Your task to perform on an android device: allow notifications from all sites in the chrome app Image 0: 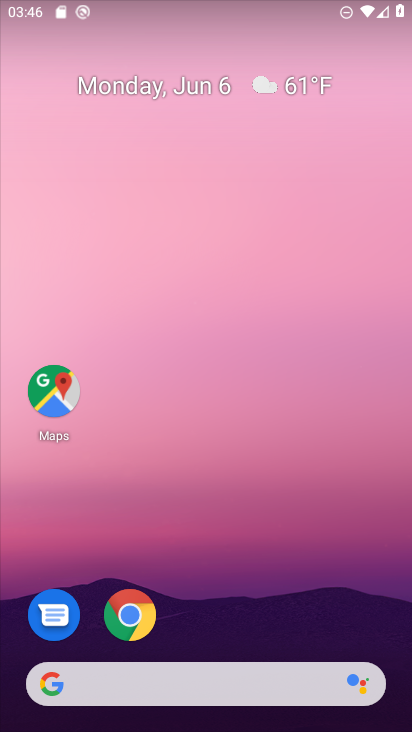
Step 0: click (131, 617)
Your task to perform on an android device: allow notifications from all sites in the chrome app Image 1: 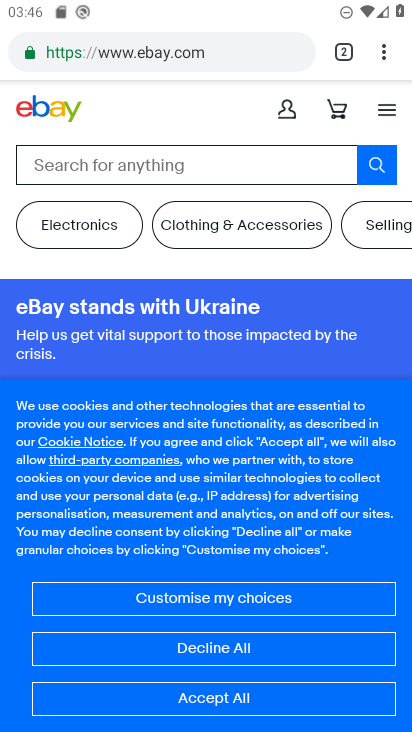
Step 1: click (383, 57)
Your task to perform on an android device: allow notifications from all sites in the chrome app Image 2: 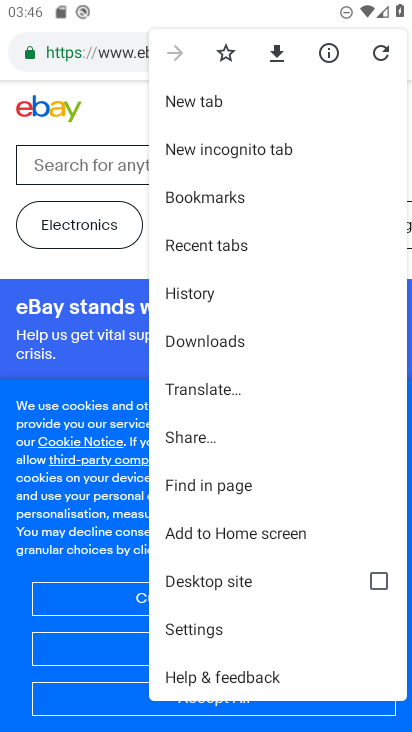
Step 2: click (199, 636)
Your task to perform on an android device: allow notifications from all sites in the chrome app Image 3: 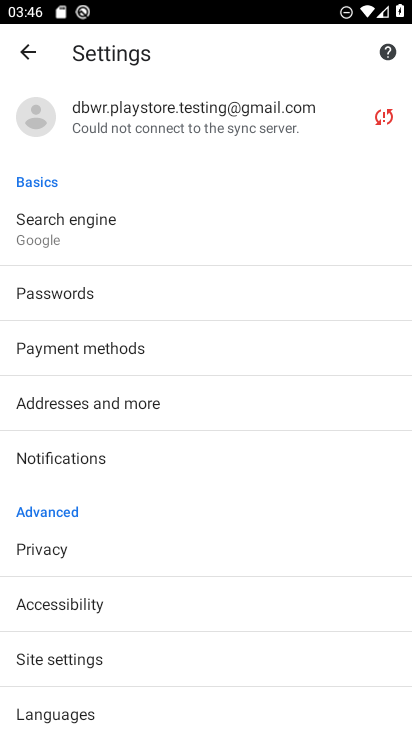
Step 3: drag from (169, 650) to (178, 475)
Your task to perform on an android device: allow notifications from all sites in the chrome app Image 4: 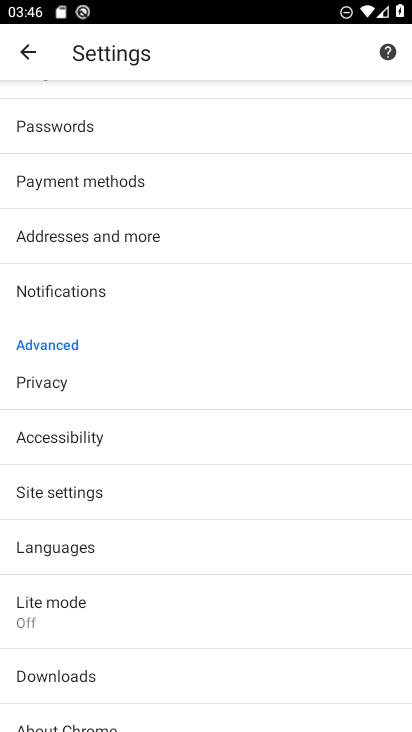
Step 4: click (74, 492)
Your task to perform on an android device: allow notifications from all sites in the chrome app Image 5: 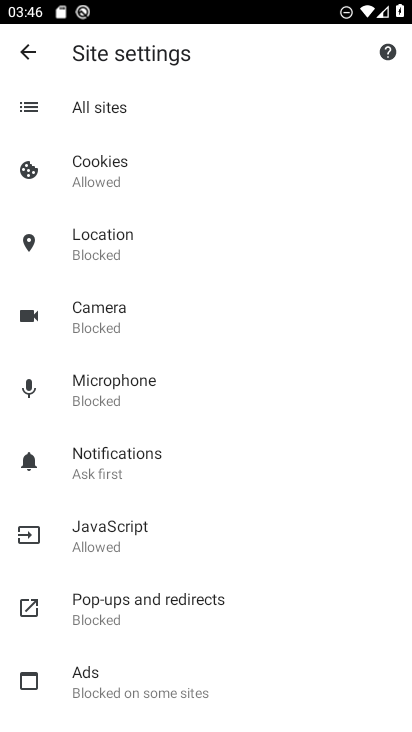
Step 5: click (124, 446)
Your task to perform on an android device: allow notifications from all sites in the chrome app Image 6: 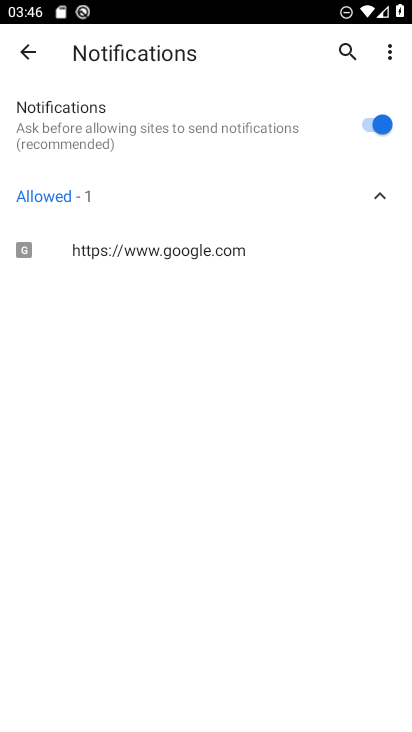
Step 6: task complete